Your task to perform on an android device: allow notifications from all sites in the chrome app Image 0: 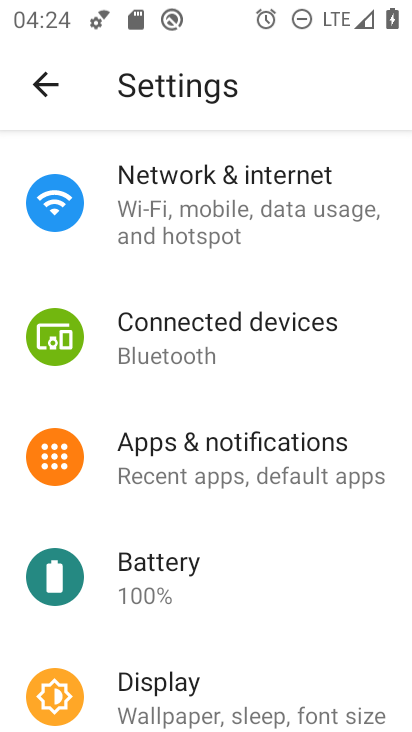
Step 0: press home button
Your task to perform on an android device: allow notifications from all sites in the chrome app Image 1: 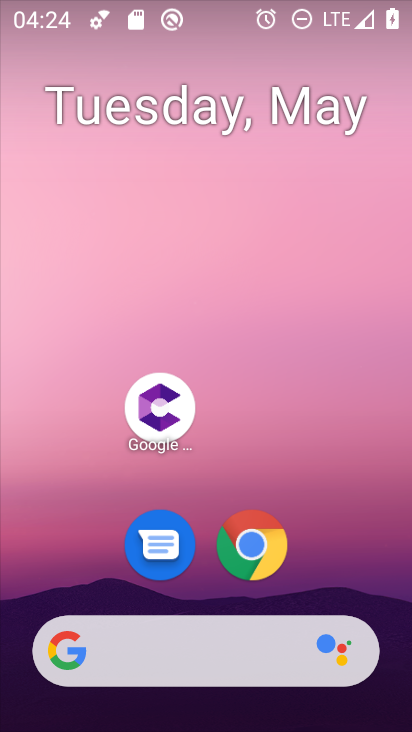
Step 1: drag from (370, 566) to (368, 272)
Your task to perform on an android device: allow notifications from all sites in the chrome app Image 2: 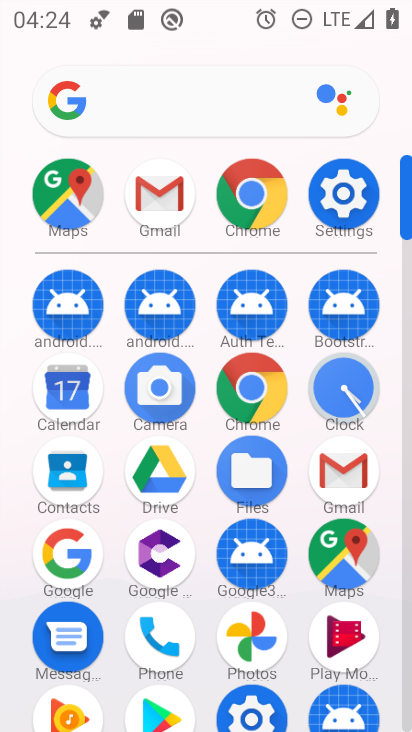
Step 2: click (268, 396)
Your task to perform on an android device: allow notifications from all sites in the chrome app Image 3: 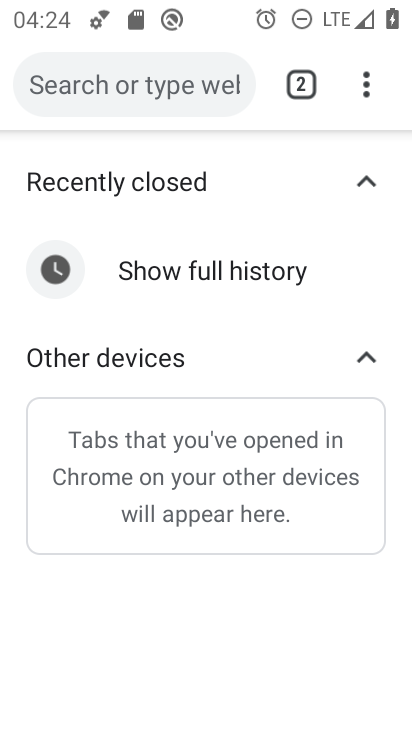
Step 3: click (368, 87)
Your task to perform on an android device: allow notifications from all sites in the chrome app Image 4: 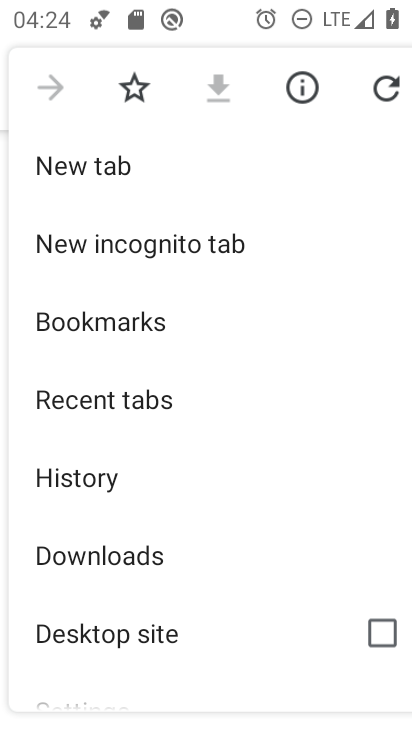
Step 4: drag from (262, 568) to (276, 416)
Your task to perform on an android device: allow notifications from all sites in the chrome app Image 5: 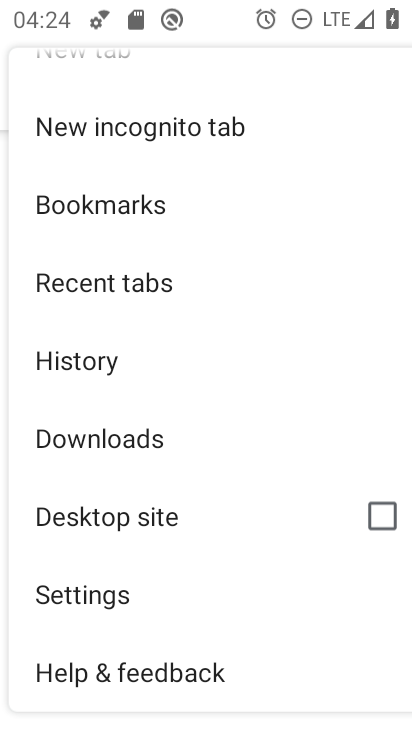
Step 5: drag from (264, 600) to (278, 414)
Your task to perform on an android device: allow notifications from all sites in the chrome app Image 6: 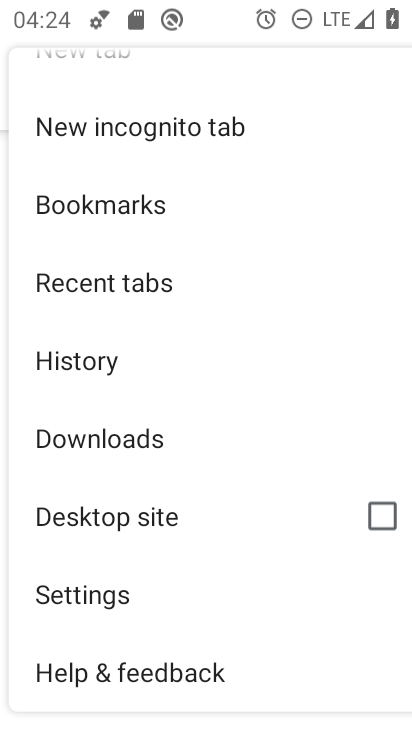
Step 6: drag from (266, 212) to (261, 336)
Your task to perform on an android device: allow notifications from all sites in the chrome app Image 7: 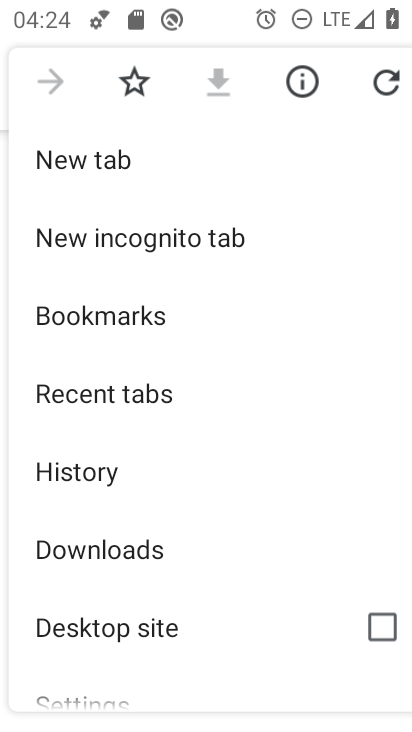
Step 7: drag from (295, 587) to (292, 434)
Your task to perform on an android device: allow notifications from all sites in the chrome app Image 8: 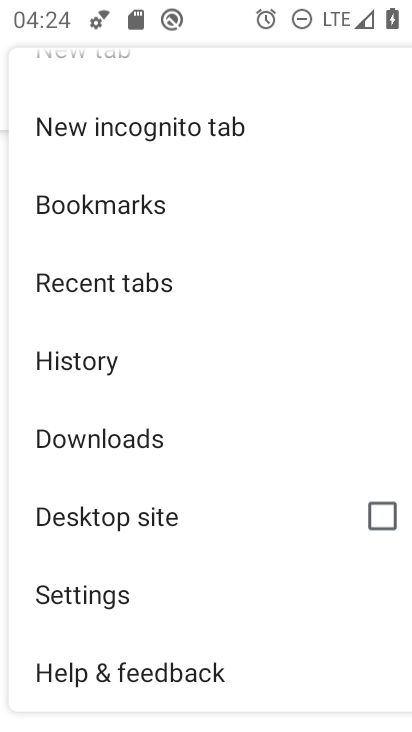
Step 8: click (199, 602)
Your task to perform on an android device: allow notifications from all sites in the chrome app Image 9: 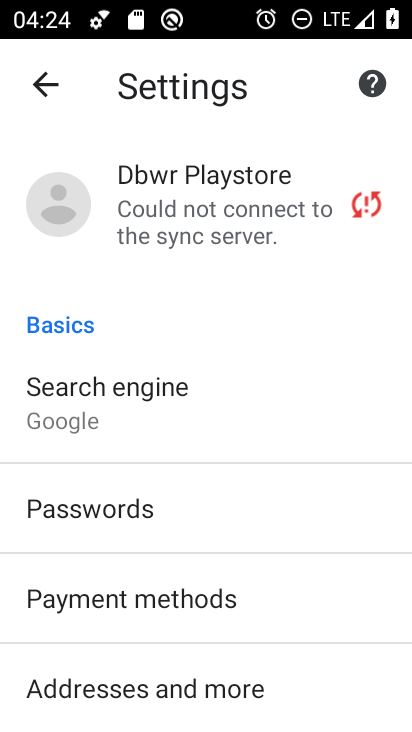
Step 9: drag from (300, 632) to (301, 499)
Your task to perform on an android device: allow notifications from all sites in the chrome app Image 10: 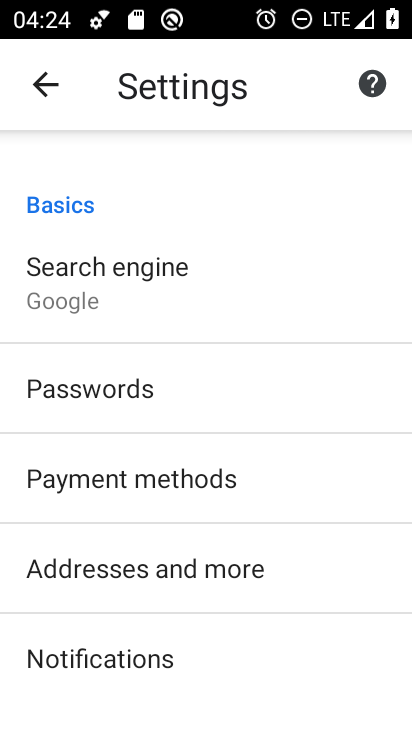
Step 10: drag from (303, 650) to (320, 530)
Your task to perform on an android device: allow notifications from all sites in the chrome app Image 11: 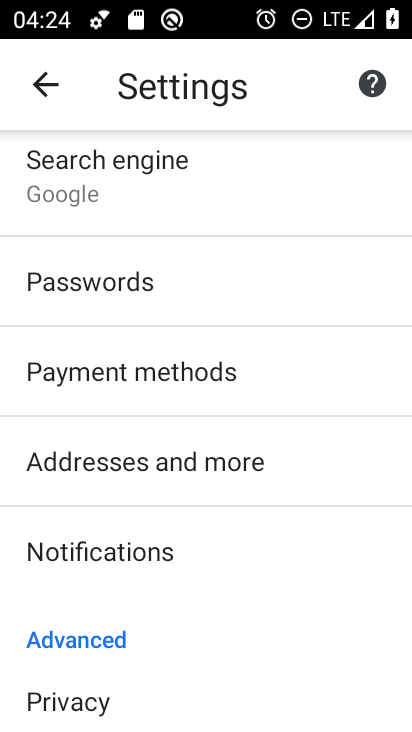
Step 11: drag from (300, 656) to (312, 521)
Your task to perform on an android device: allow notifications from all sites in the chrome app Image 12: 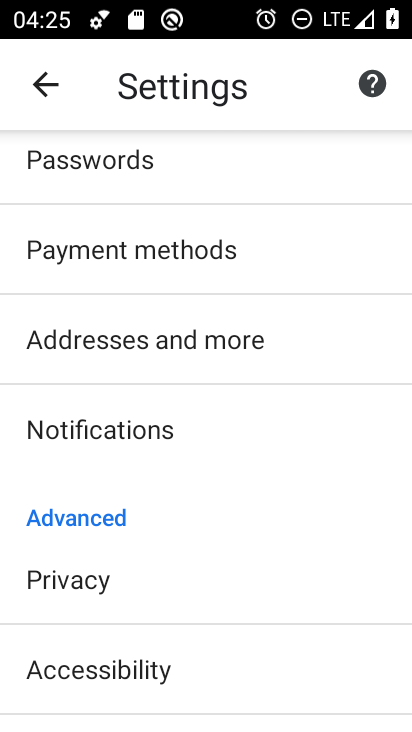
Step 12: drag from (304, 656) to (305, 555)
Your task to perform on an android device: allow notifications from all sites in the chrome app Image 13: 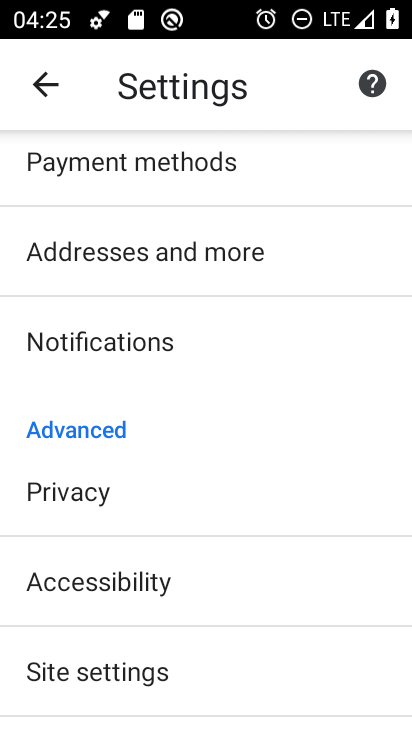
Step 13: drag from (297, 688) to (294, 572)
Your task to perform on an android device: allow notifications from all sites in the chrome app Image 14: 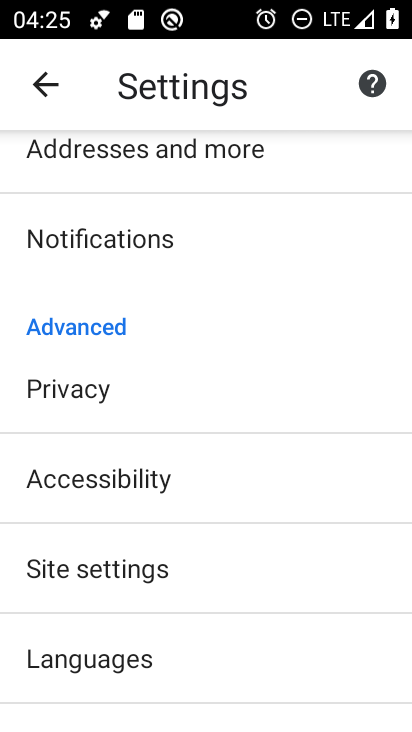
Step 14: drag from (306, 669) to (298, 563)
Your task to perform on an android device: allow notifications from all sites in the chrome app Image 15: 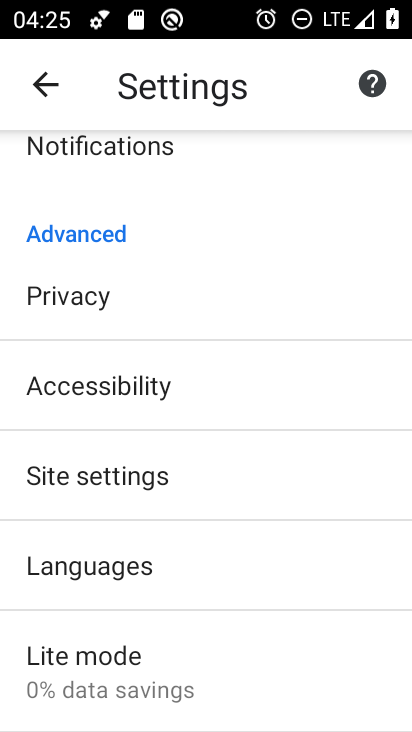
Step 15: drag from (306, 684) to (302, 583)
Your task to perform on an android device: allow notifications from all sites in the chrome app Image 16: 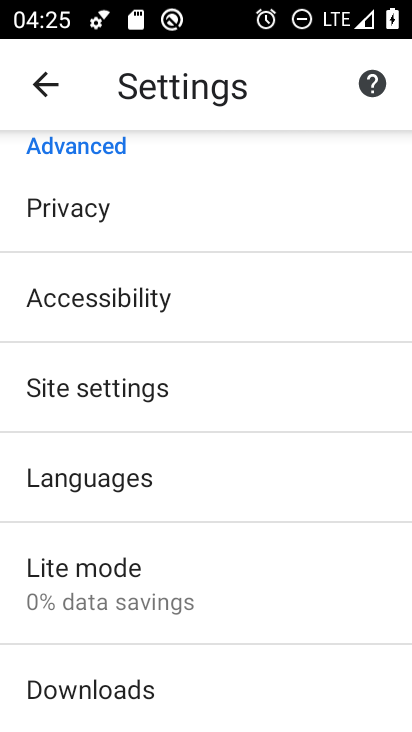
Step 16: drag from (302, 583) to (335, 469)
Your task to perform on an android device: allow notifications from all sites in the chrome app Image 17: 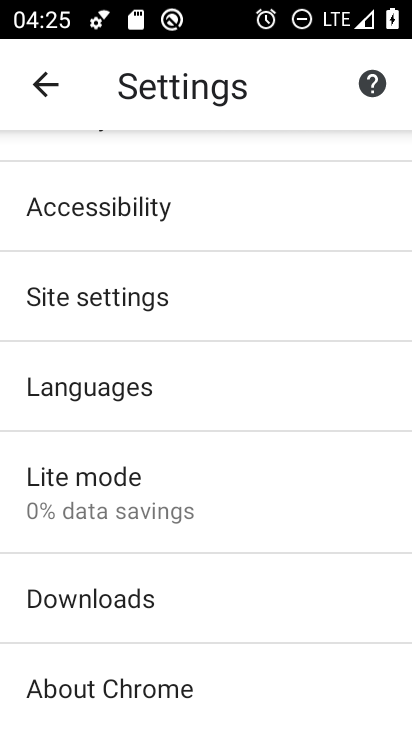
Step 17: click (309, 299)
Your task to perform on an android device: allow notifications from all sites in the chrome app Image 18: 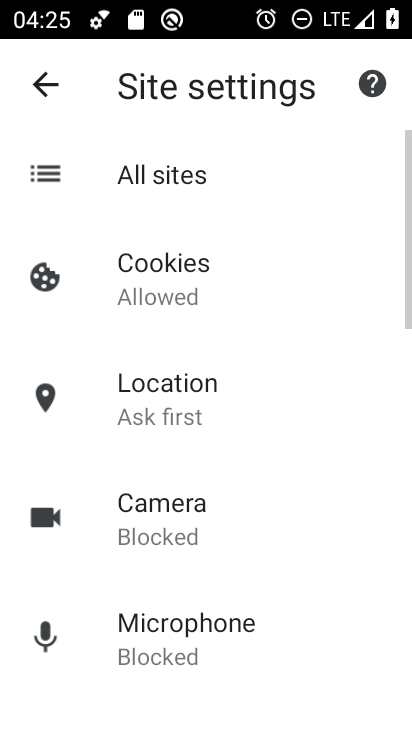
Step 18: drag from (324, 571) to (327, 462)
Your task to perform on an android device: allow notifications from all sites in the chrome app Image 19: 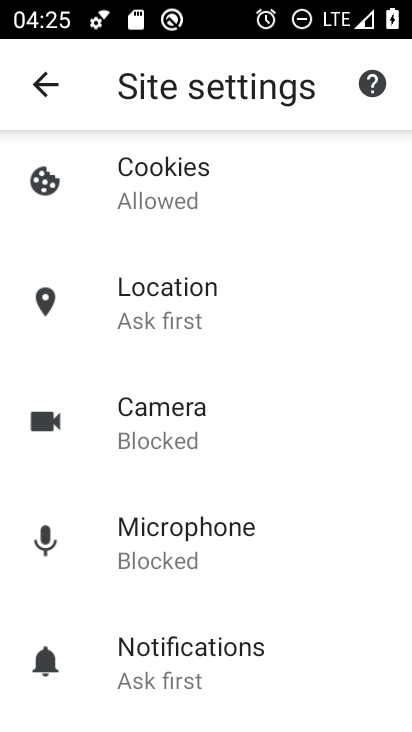
Step 19: drag from (317, 625) to (319, 517)
Your task to perform on an android device: allow notifications from all sites in the chrome app Image 20: 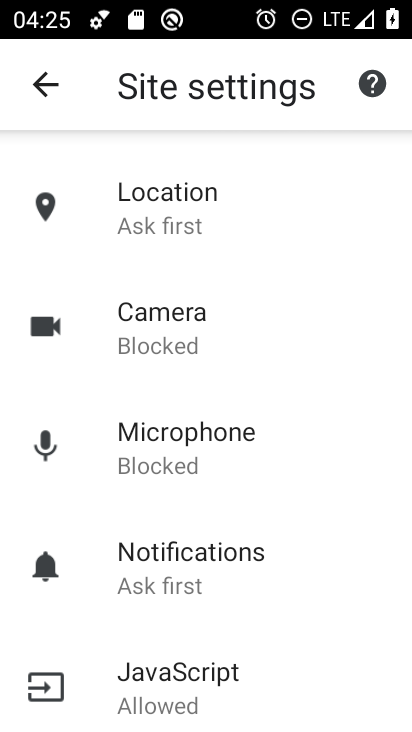
Step 20: drag from (315, 630) to (328, 539)
Your task to perform on an android device: allow notifications from all sites in the chrome app Image 21: 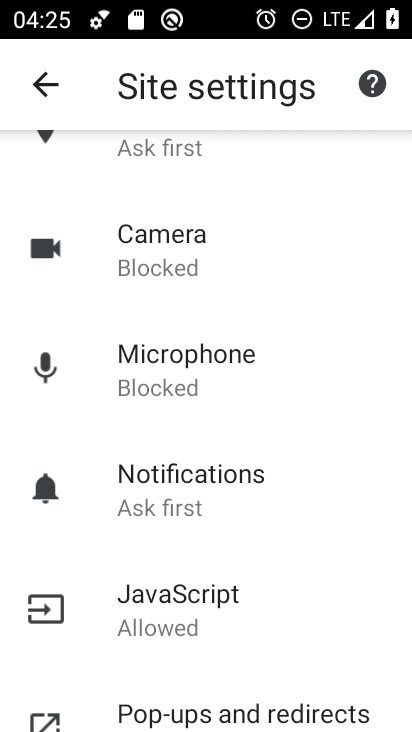
Step 21: drag from (316, 637) to (303, 522)
Your task to perform on an android device: allow notifications from all sites in the chrome app Image 22: 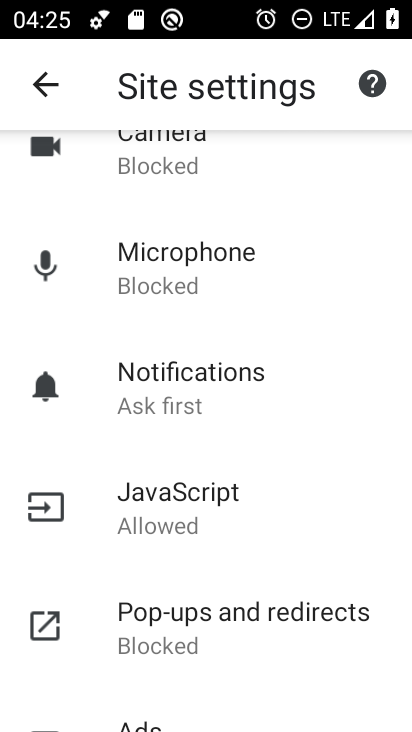
Step 22: drag from (310, 678) to (314, 565)
Your task to perform on an android device: allow notifications from all sites in the chrome app Image 23: 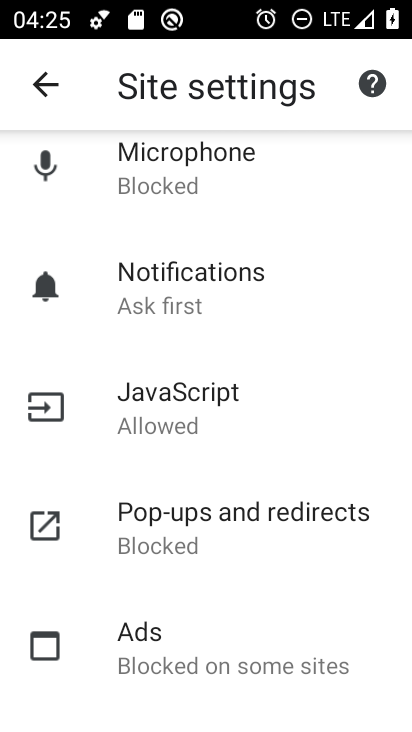
Step 23: drag from (298, 701) to (304, 564)
Your task to perform on an android device: allow notifications from all sites in the chrome app Image 24: 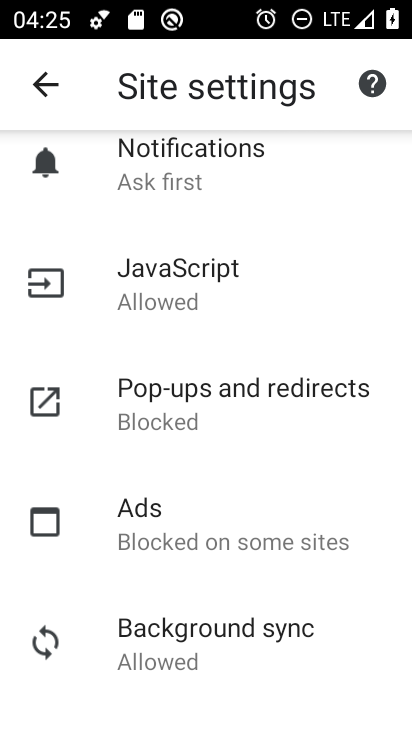
Step 24: click (199, 149)
Your task to perform on an android device: allow notifications from all sites in the chrome app Image 25: 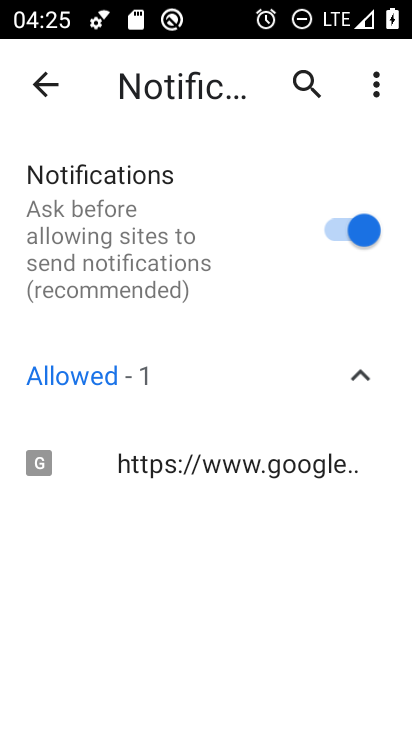
Step 25: task complete